Your task to perform on an android device: change the clock style Image 0: 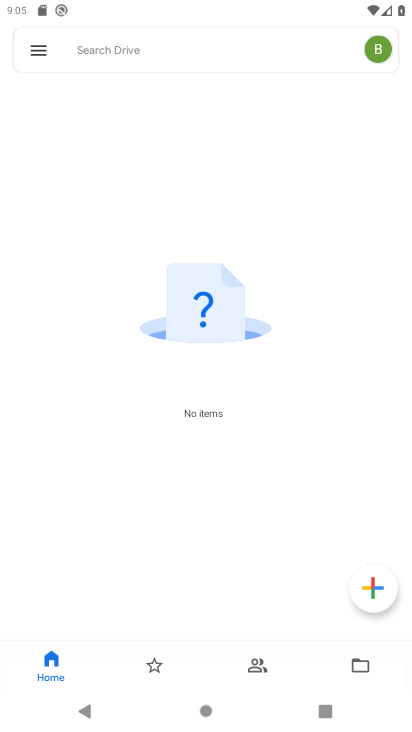
Step 0: press home button
Your task to perform on an android device: change the clock style Image 1: 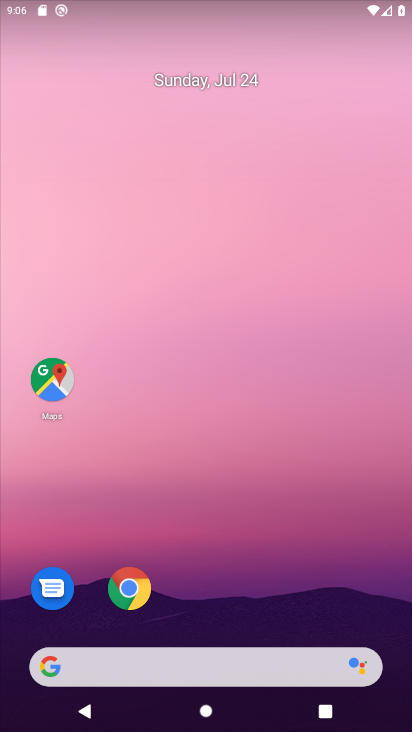
Step 1: drag from (398, 714) to (363, 134)
Your task to perform on an android device: change the clock style Image 2: 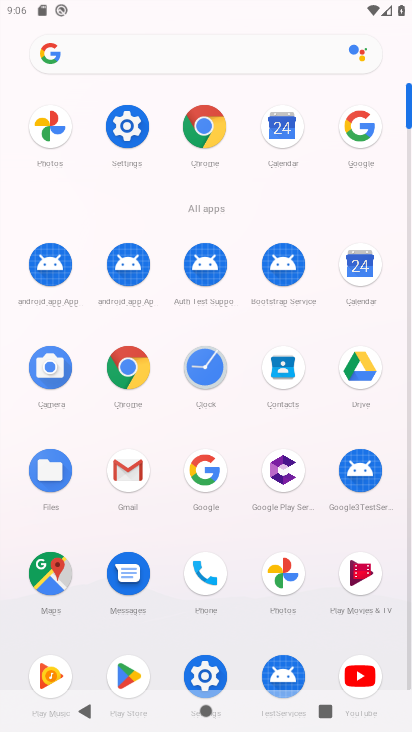
Step 2: click (205, 360)
Your task to perform on an android device: change the clock style Image 3: 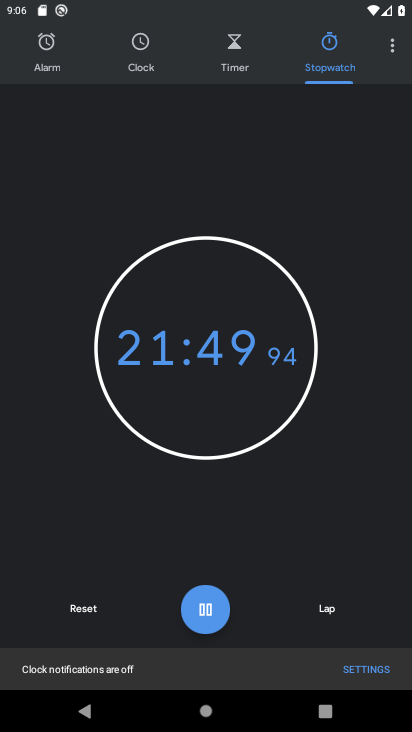
Step 3: click (389, 49)
Your task to perform on an android device: change the clock style Image 4: 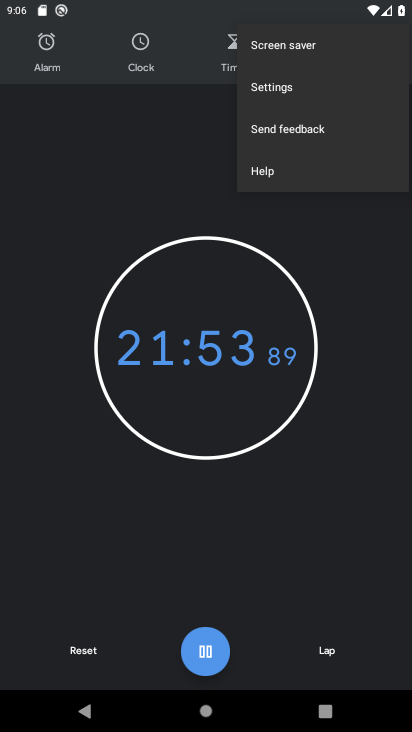
Step 4: click (290, 83)
Your task to perform on an android device: change the clock style Image 5: 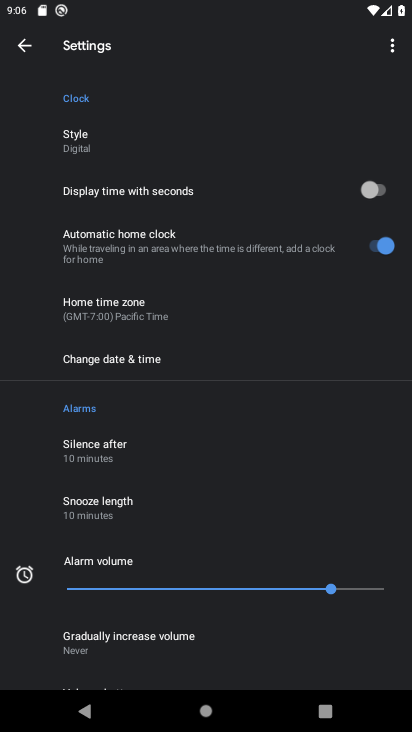
Step 5: click (83, 138)
Your task to perform on an android device: change the clock style Image 6: 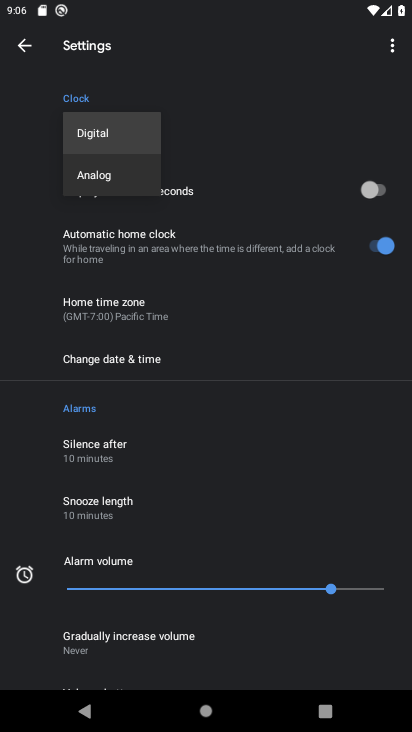
Step 6: click (91, 170)
Your task to perform on an android device: change the clock style Image 7: 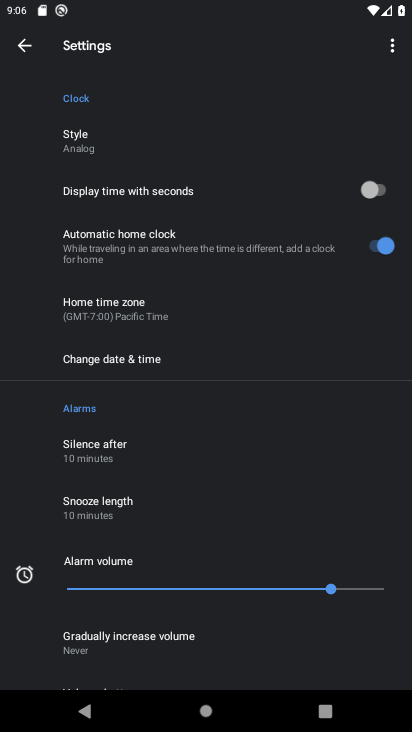
Step 7: task complete